Your task to perform on an android device: snooze an email in the gmail app Image 0: 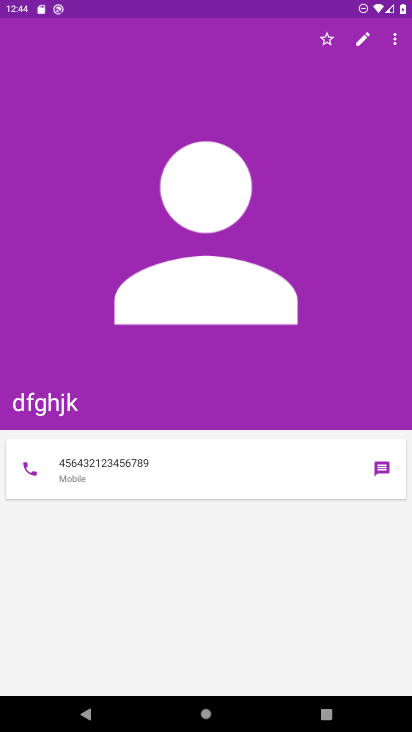
Step 0: press home button
Your task to perform on an android device: snooze an email in the gmail app Image 1: 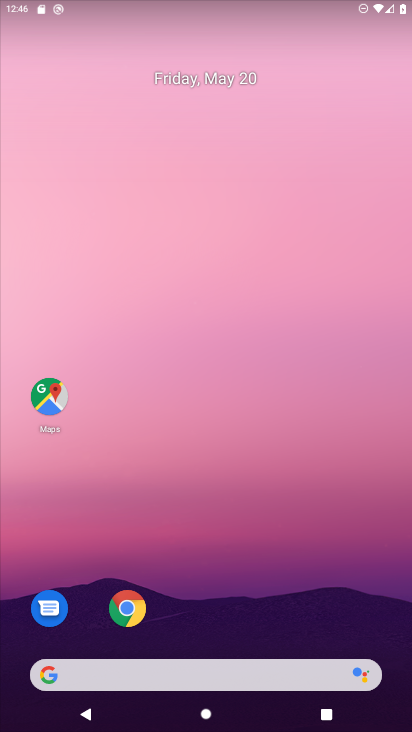
Step 1: drag from (219, 592) to (295, 132)
Your task to perform on an android device: snooze an email in the gmail app Image 2: 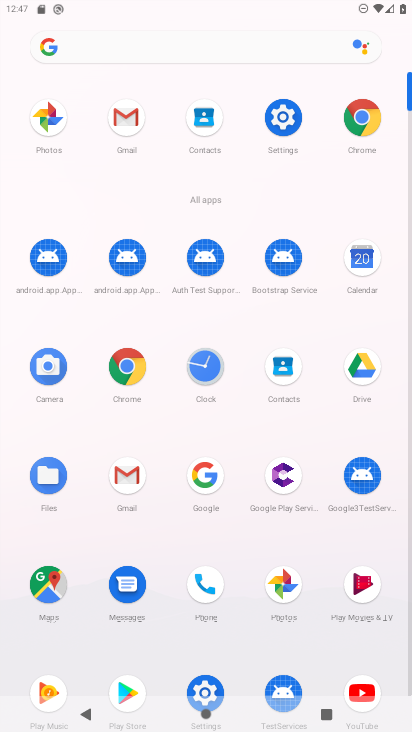
Step 2: click (149, 124)
Your task to perform on an android device: snooze an email in the gmail app Image 3: 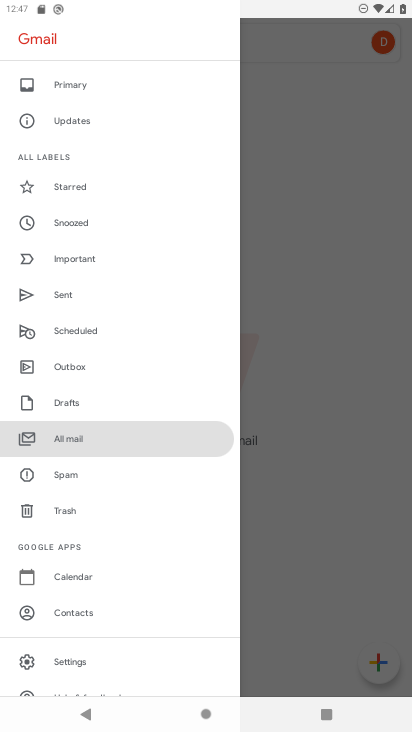
Step 3: task complete